Your task to perform on an android device: check storage Image 0: 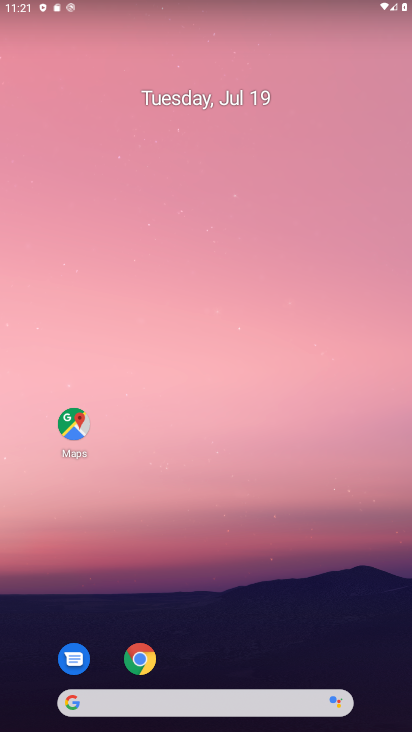
Step 0: press home button
Your task to perform on an android device: check storage Image 1: 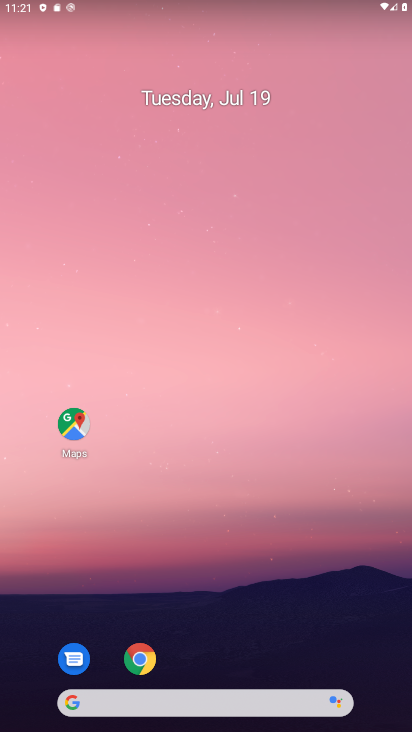
Step 1: click (138, 655)
Your task to perform on an android device: check storage Image 2: 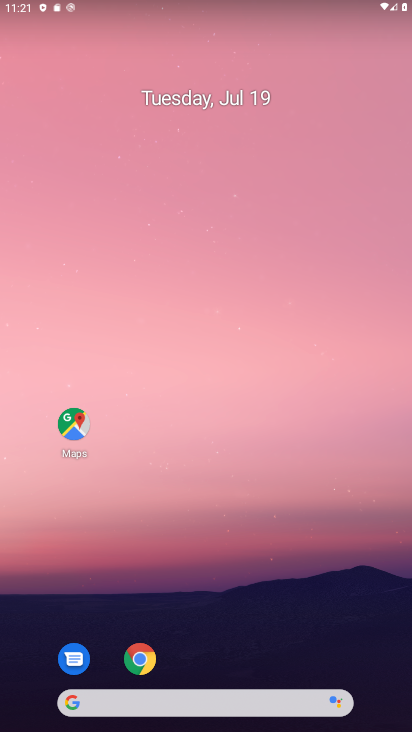
Step 2: click (137, 654)
Your task to perform on an android device: check storage Image 3: 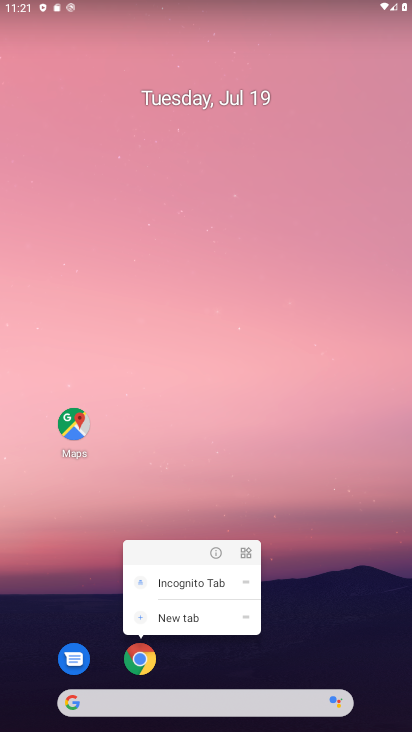
Step 3: click (286, 667)
Your task to perform on an android device: check storage Image 4: 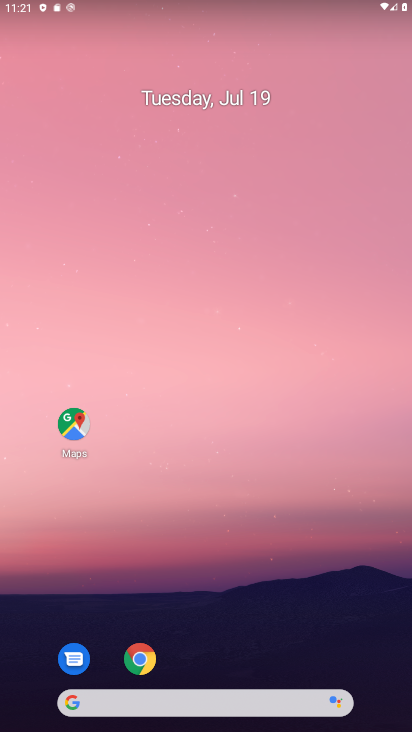
Step 4: drag from (276, 669) to (276, 44)
Your task to perform on an android device: check storage Image 5: 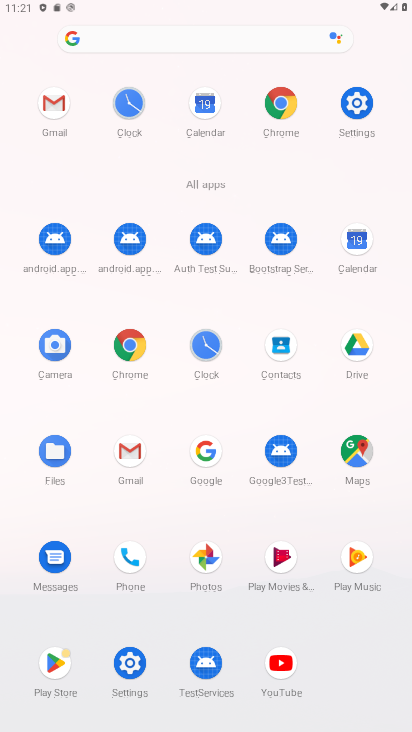
Step 5: click (354, 95)
Your task to perform on an android device: check storage Image 6: 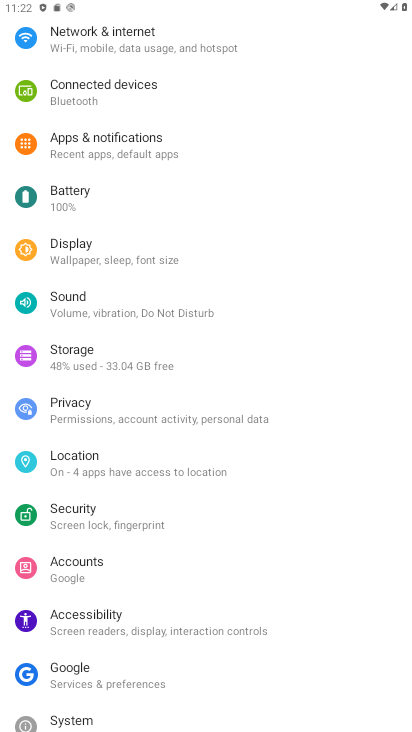
Step 6: click (107, 347)
Your task to perform on an android device: check storage Image 7: 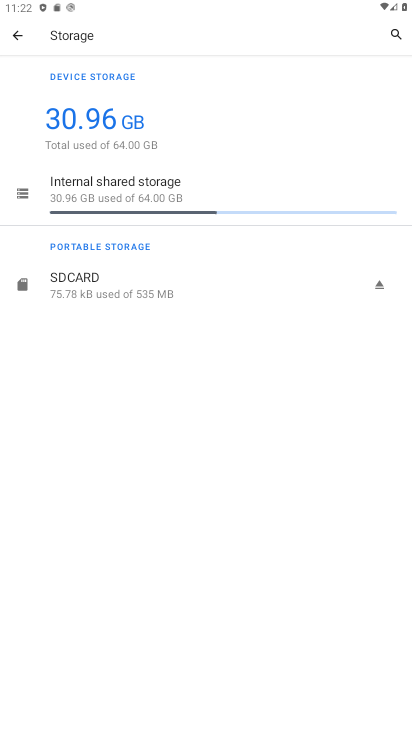
Step 7: task complete